Your task to perform on an android device: Go to network settings Image 0: 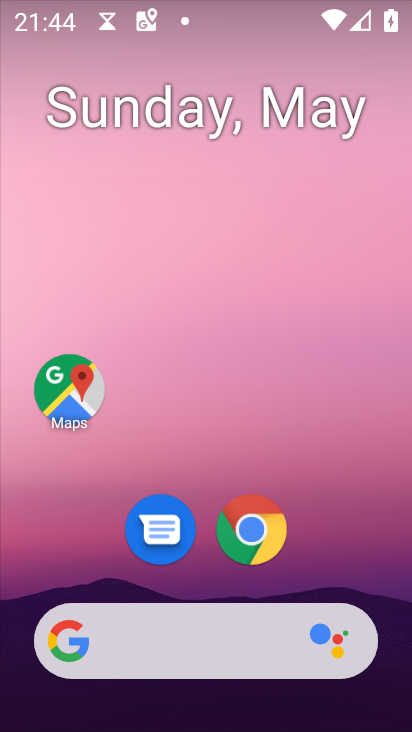
Step 0: drag from (210, 568) to (254, 22)
Your task to perform on an android device: Go to network settings Image 1: 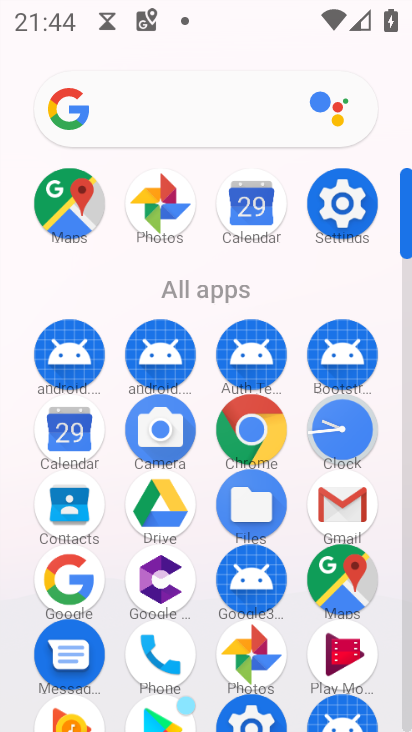
Step 1: click (346, 209)
Your task to perform on an android device: Go to network settings Image 2: 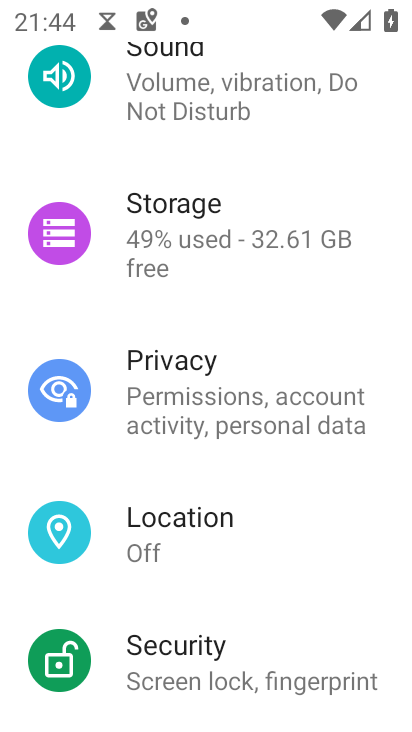
Step 2: drag from (176, 168) to (175, 591)
Your task to perform on an android device: Go to network settings Image 3: 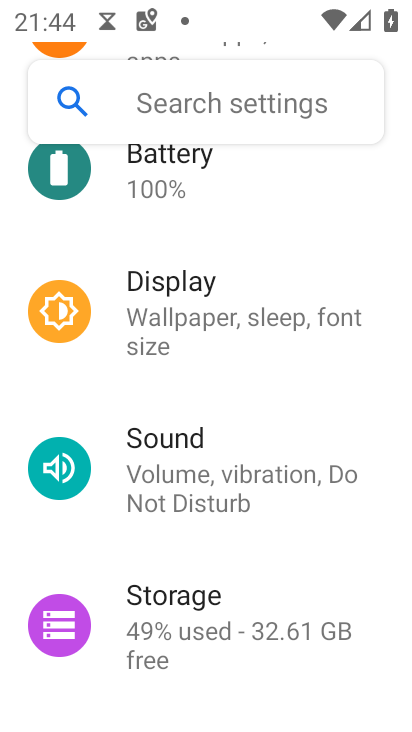
Step 3: drag from (233, 201) to (298, 591)
Your task to perform on an android device: Go to network settings Image 4: 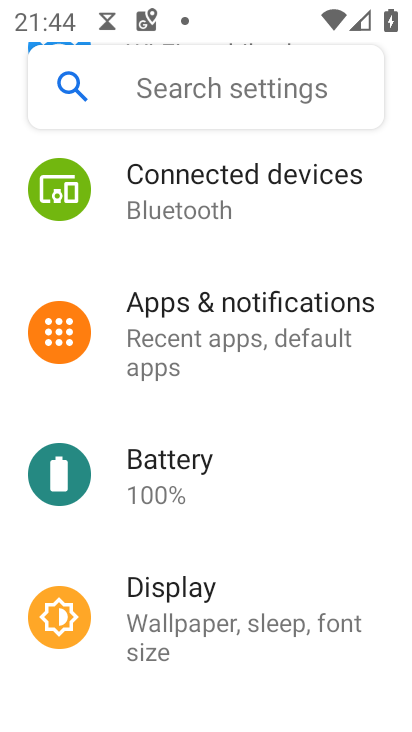
Step 4: drag from (309, 249) to (336, 590)
Your task to perform on an android device: Go to network settings Image 5: 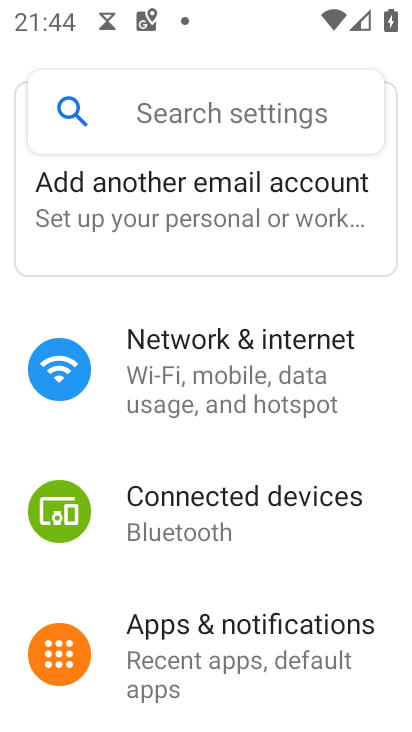
Step 5: click (205, 354)
Your task to perform on an android device: Go to network settings Image 6: 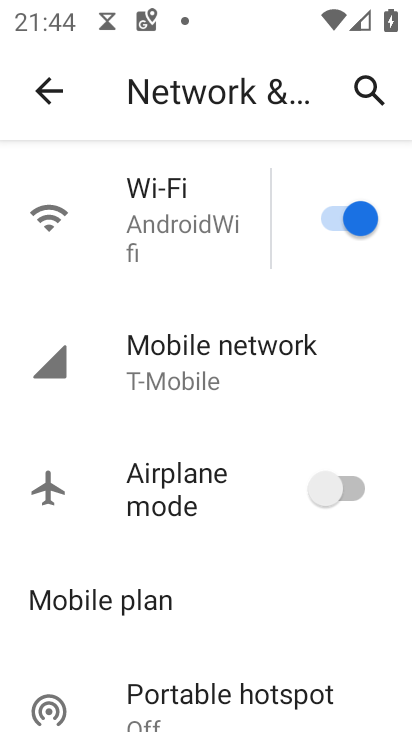
Step 6: click (198, 367)
Your task to perform on an android device: Go to network settings Image 7: 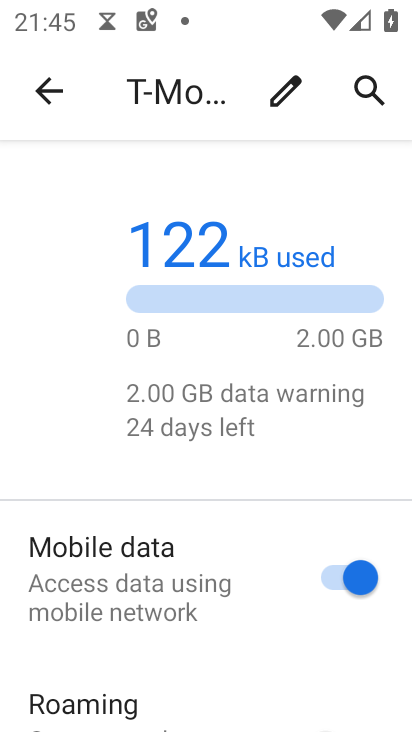
Step 7: task complete